Your task to perform on an android device: Go to display settings Image 0: 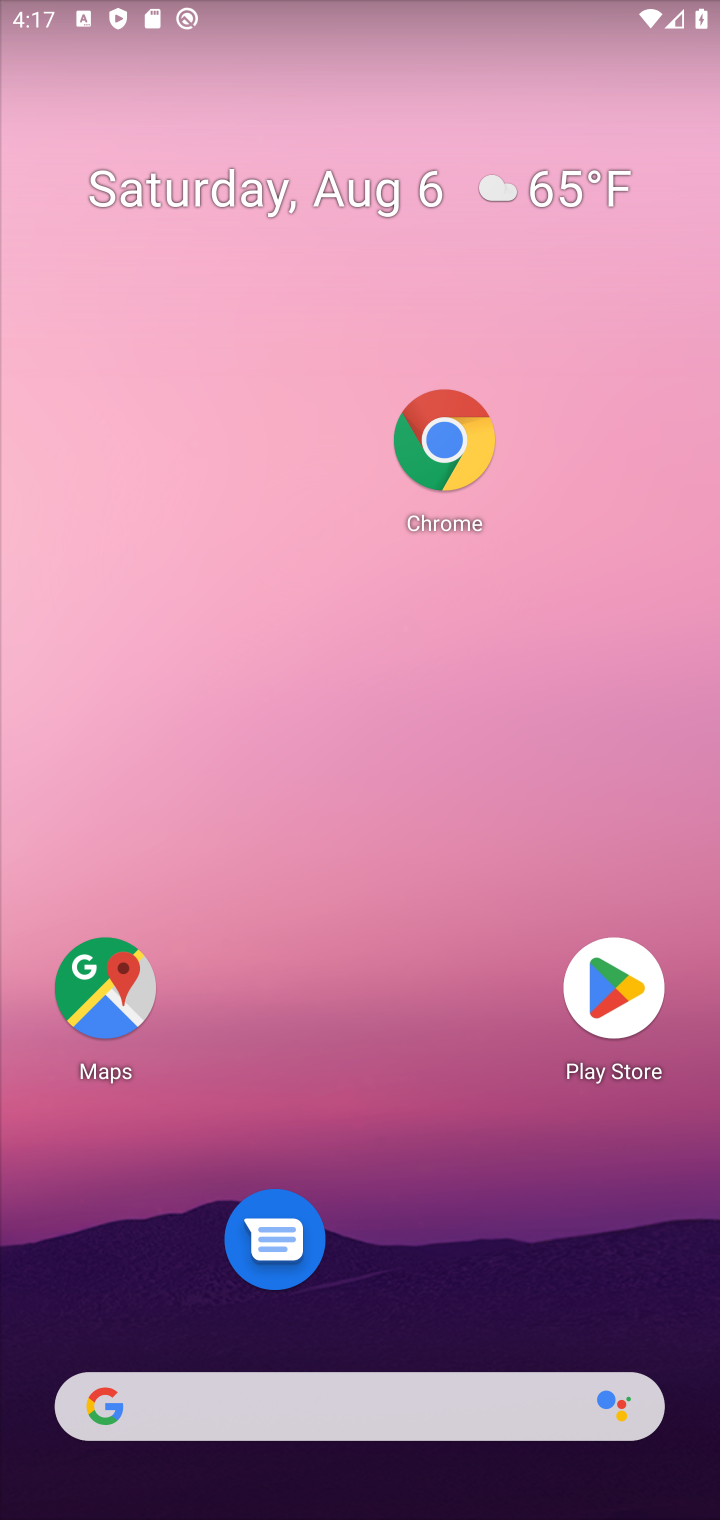
Step 0: drag from (507, 1385) to (543, 132)
Your task to perform on an android device: Go to display settings Image 1: 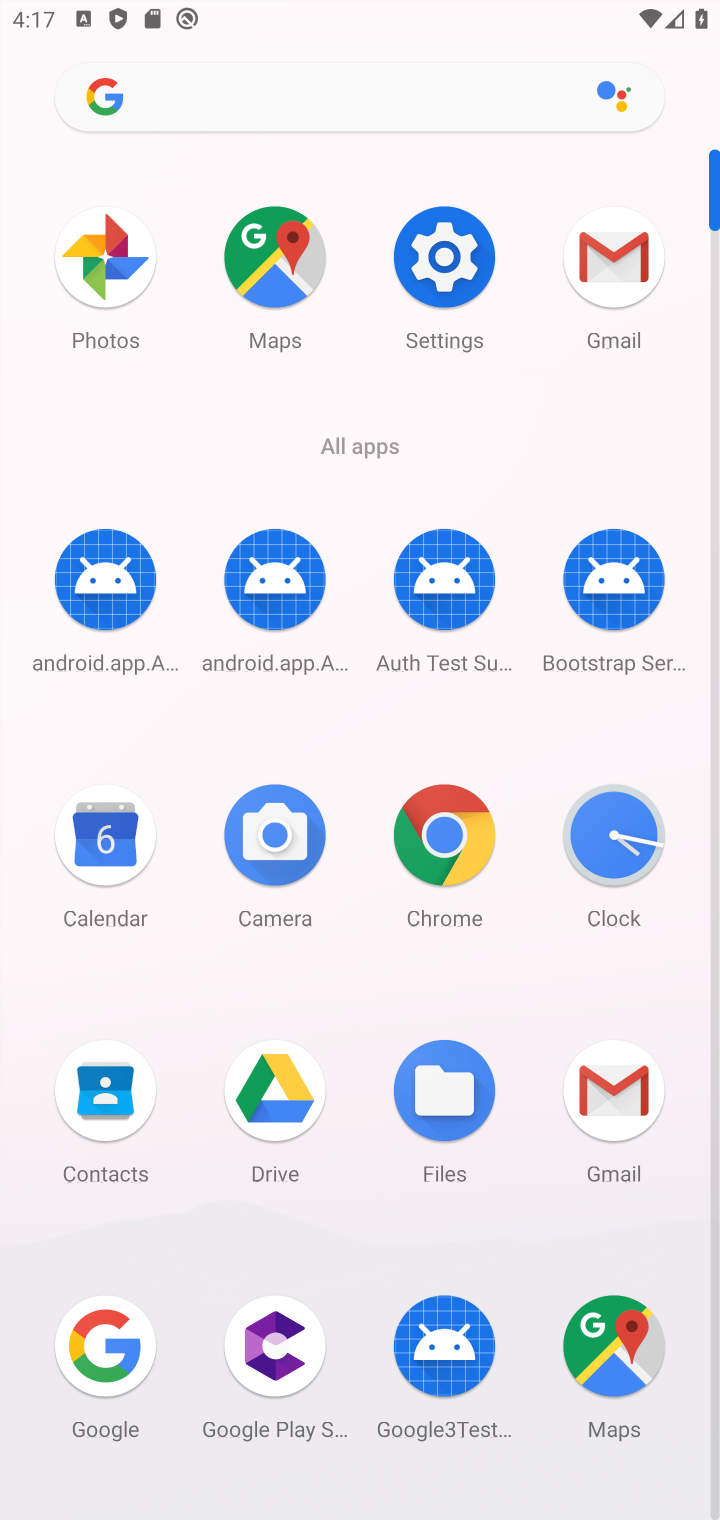
Step 1: click (447, 259)
Your task to perform on an android device: Go to display settings Image 2: 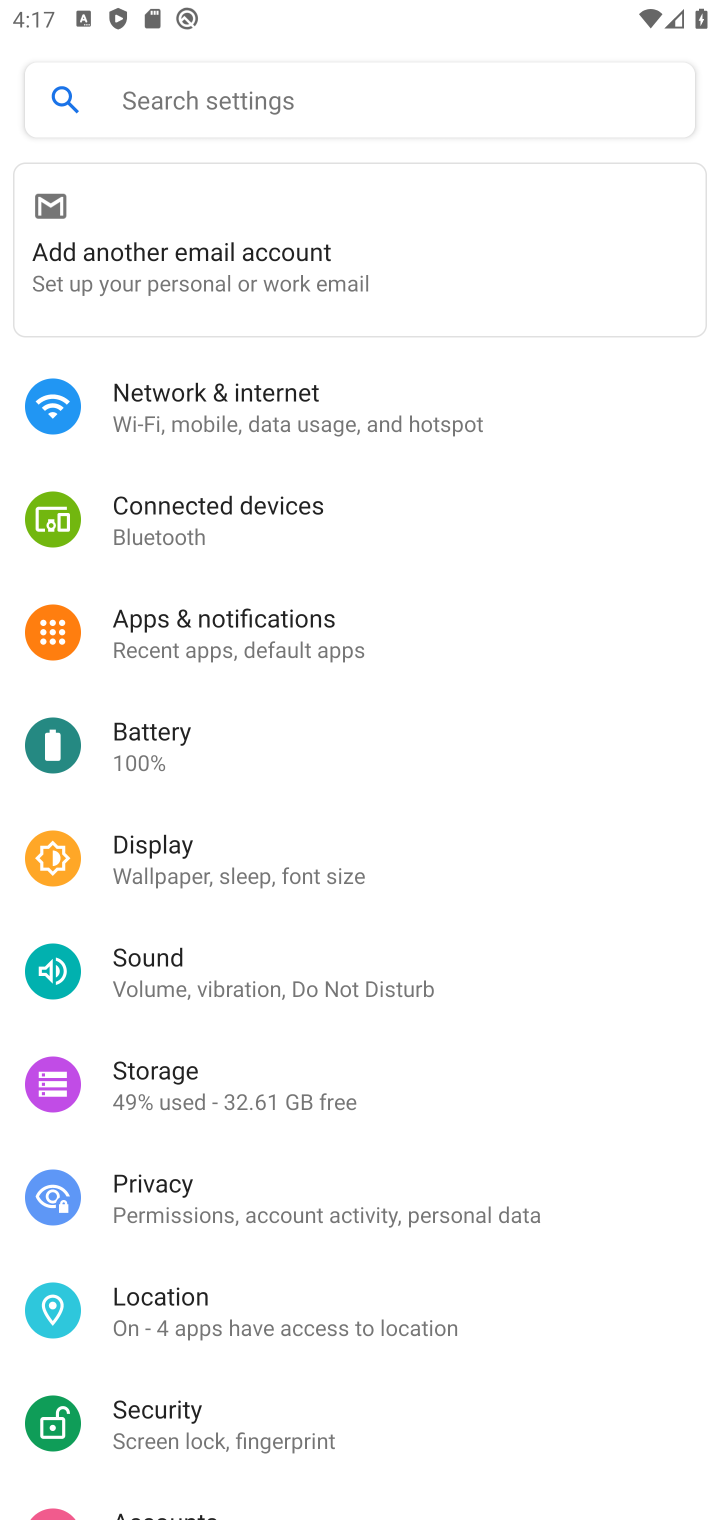
Step 2: click (220, 855)
Your task to perform on an android device: Go to display settings Image 3: 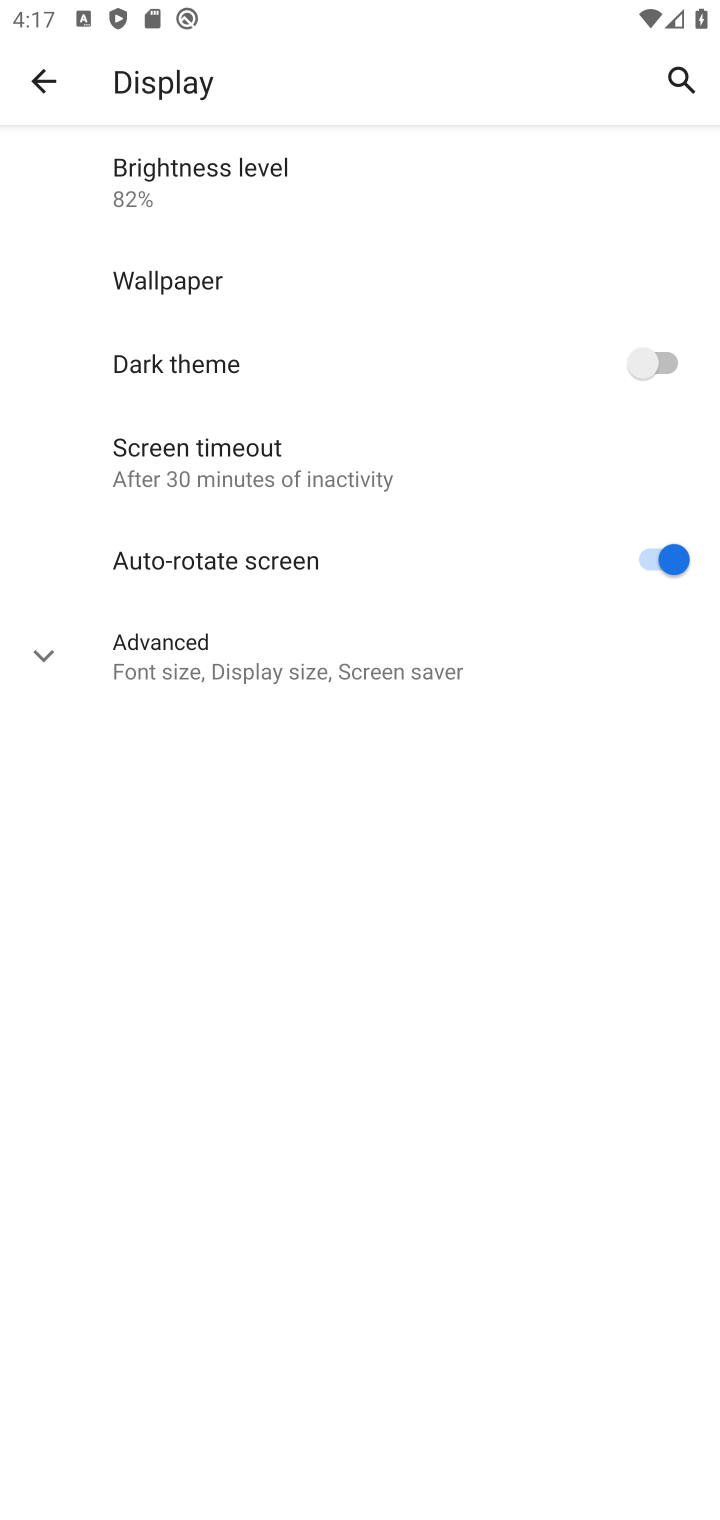
Step 3: task complete